Your task to perform on an android device: Go to Google maps Image 0: 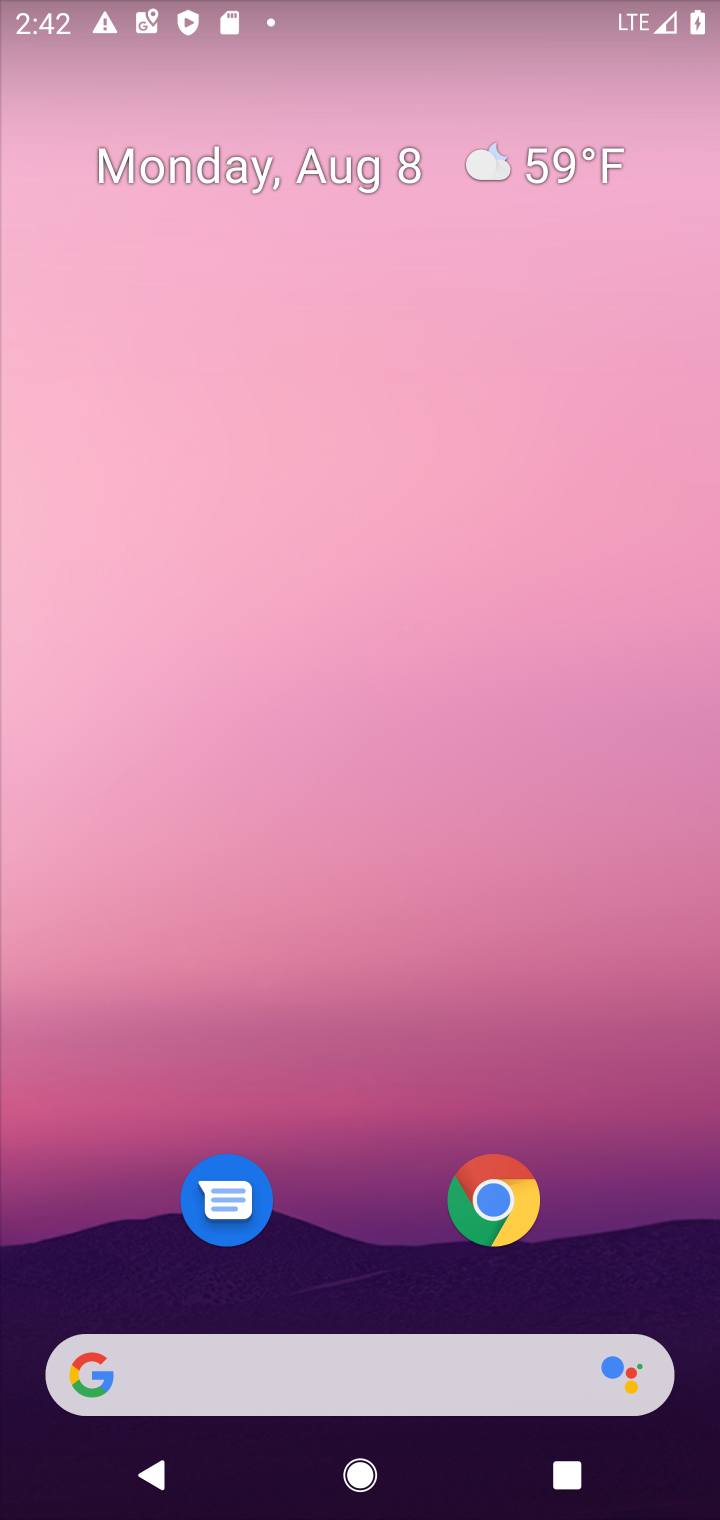
Step 0: drag from (408, 1089) to (506, 14)
Your task to perform on an android device: Go to Google maps Image 1: 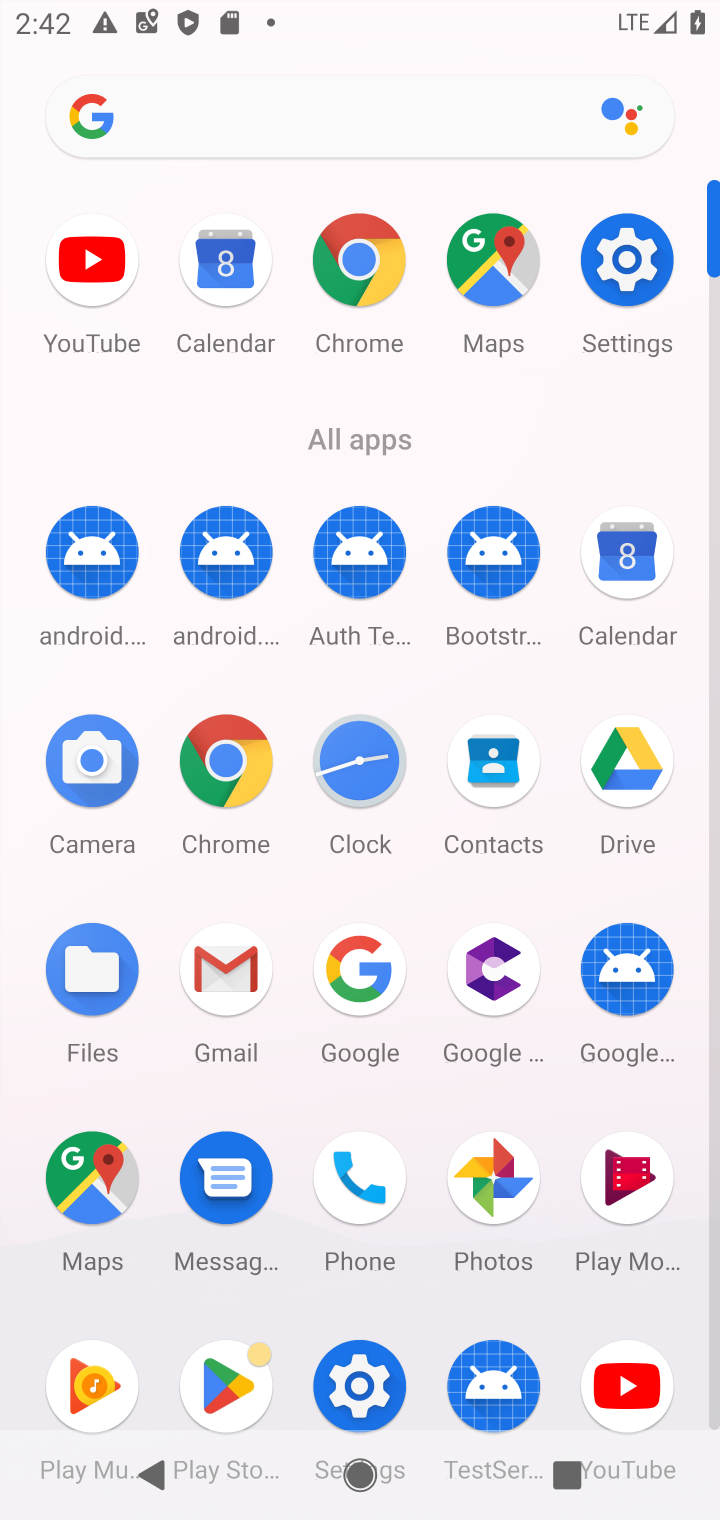
Step 1: click (488, 267)
Your task to perform on an android device: Go to Google maps Image 2: 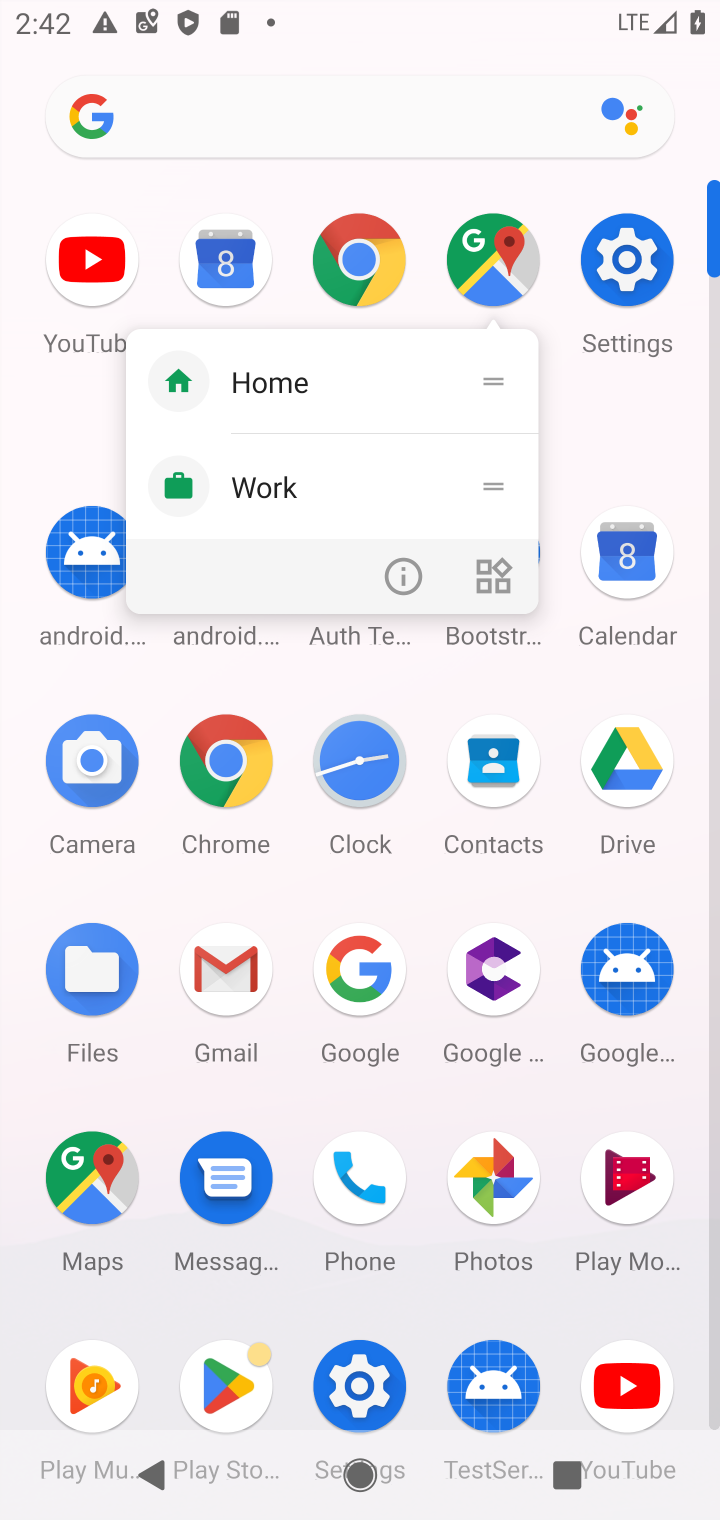
Step 2: click (488, 267)
Your task to perform on an android device: Go to Google maps Image 3: 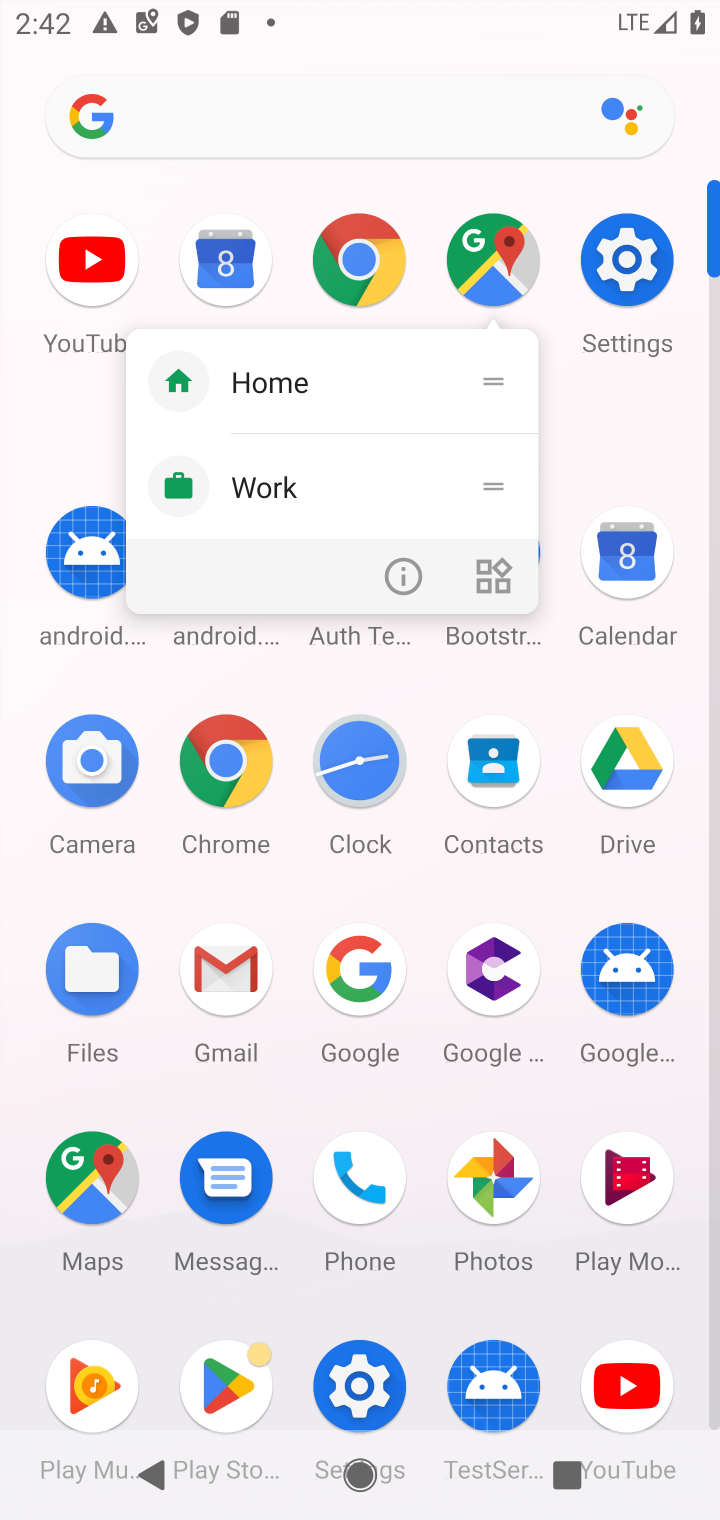
Step 3: click (499, 255)
Your task to perform on an android device: Go to Google maps Image 4: 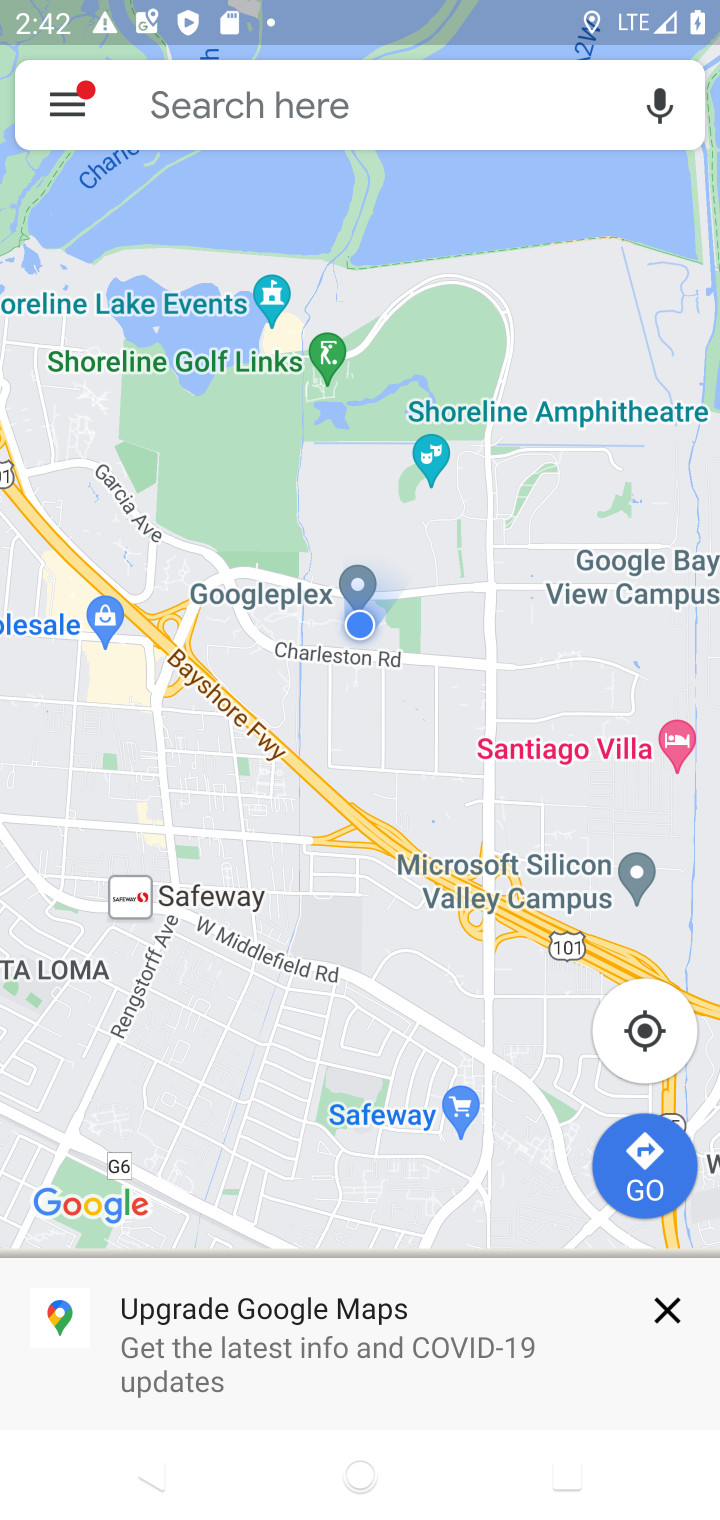
Step 4: task complete